Your task to perform on an android device: Open Yahoo.com Image 0: 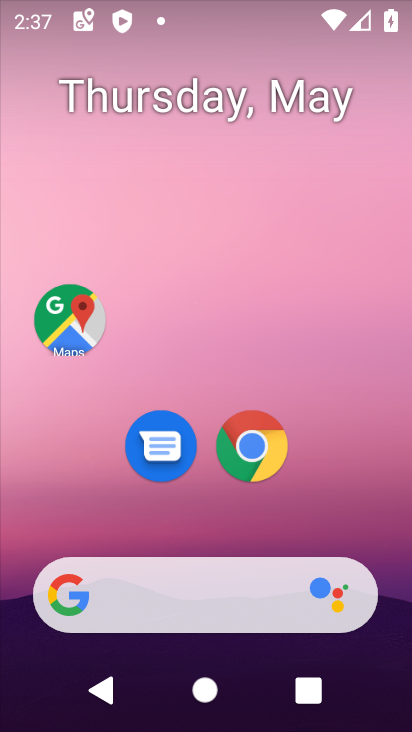
Step 0: click (251, 449)
Your task to perform on an android device: Open Yahoo.com Image 1: 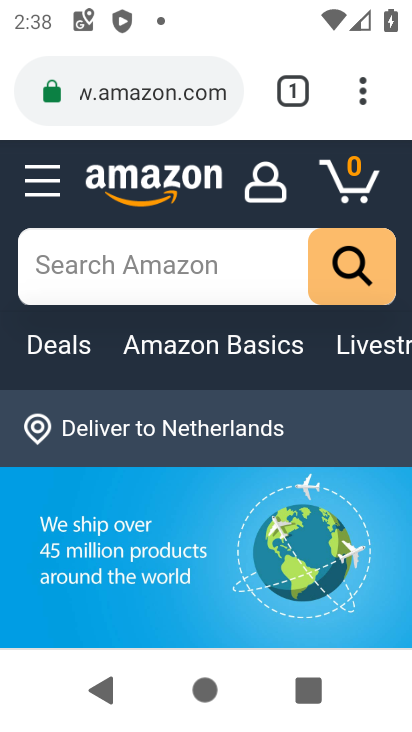
Step 1: click (154, 90)
Your task to perform on an android device: Open Yahoo.com Image 2: 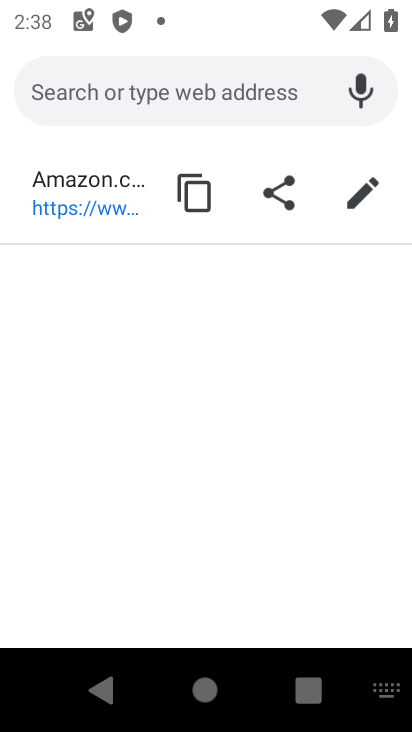
Step 2: type "yahoo.com"
Your task to perform on an android device: Open Yahoo.com Image 3: 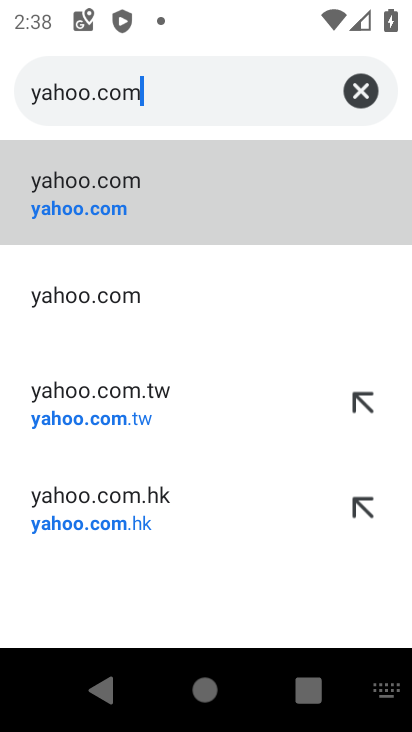
Step 3: click (24, 190)
Your task to perform on an android device: Open Yahoo.com Image 4: 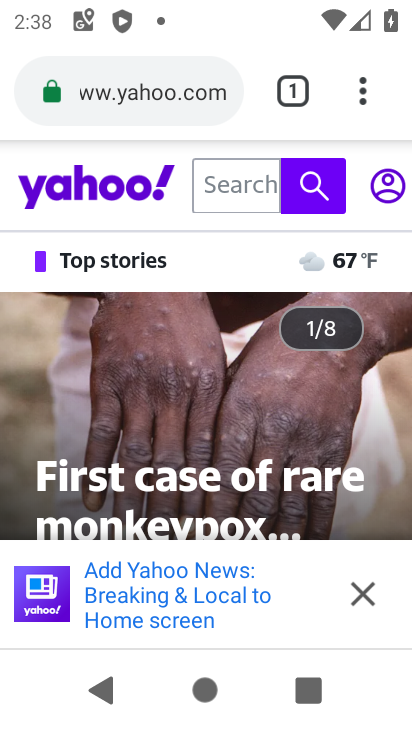
Step 4: task complete